Your task to perform on an android device: Add "razer nari" to the cart on ebay.com, then select checkout. Image 0: 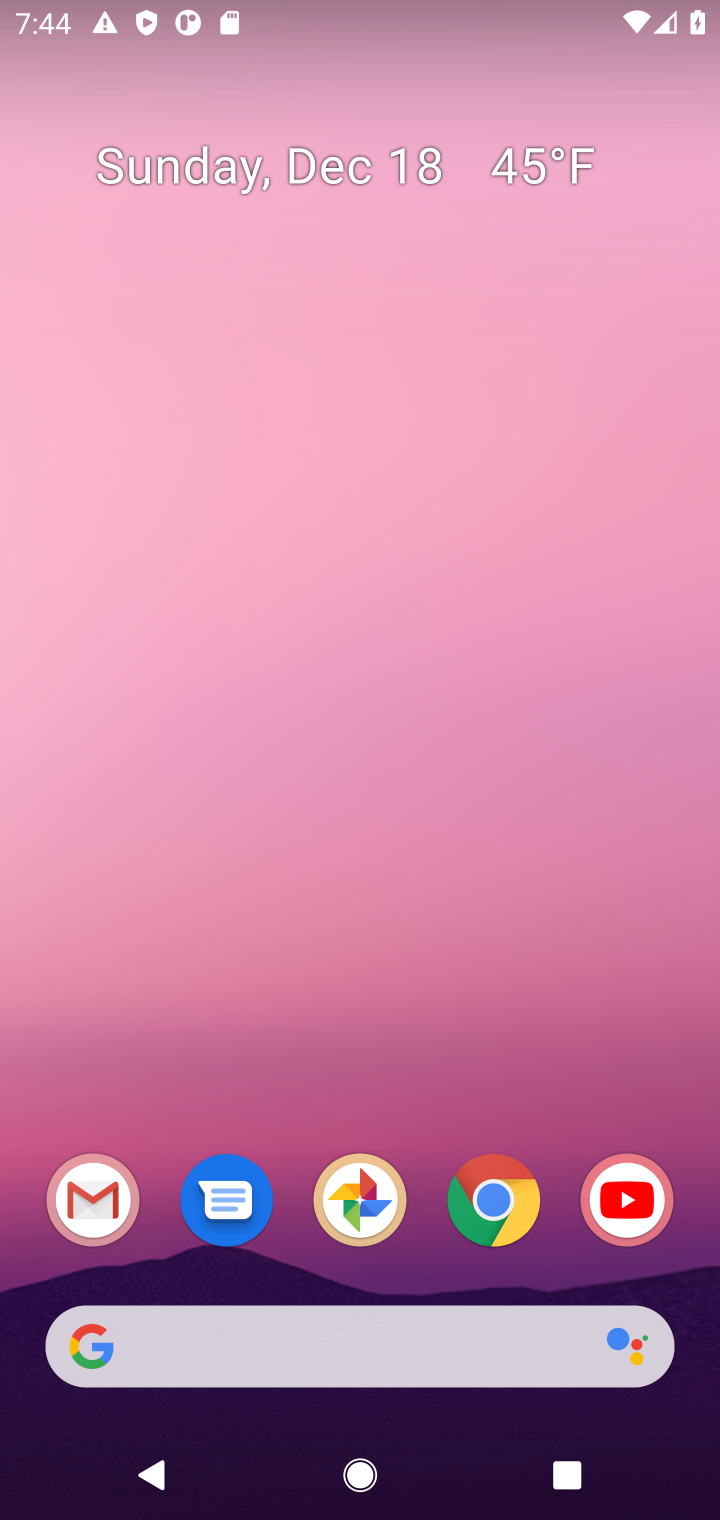
Step 0: click (510, 1209)
Your task to perform on an android device: Add "razer nari" to the cart on ebay.com, then select checkout. Image 1: 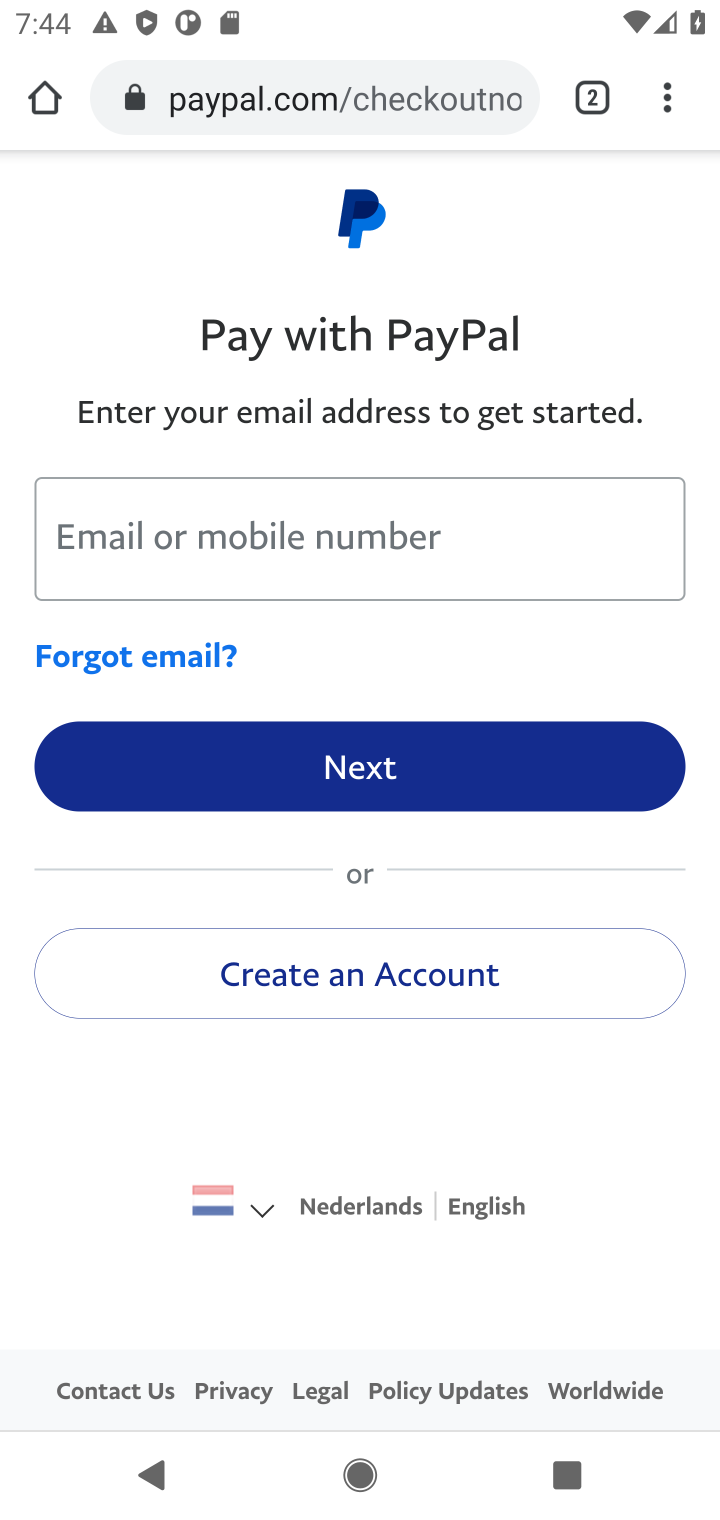
Step 1: click (309, 92)
Your task to perform on an android device: Add "razer nari" to the cart on ebay.com, then select checkout. Image 2: 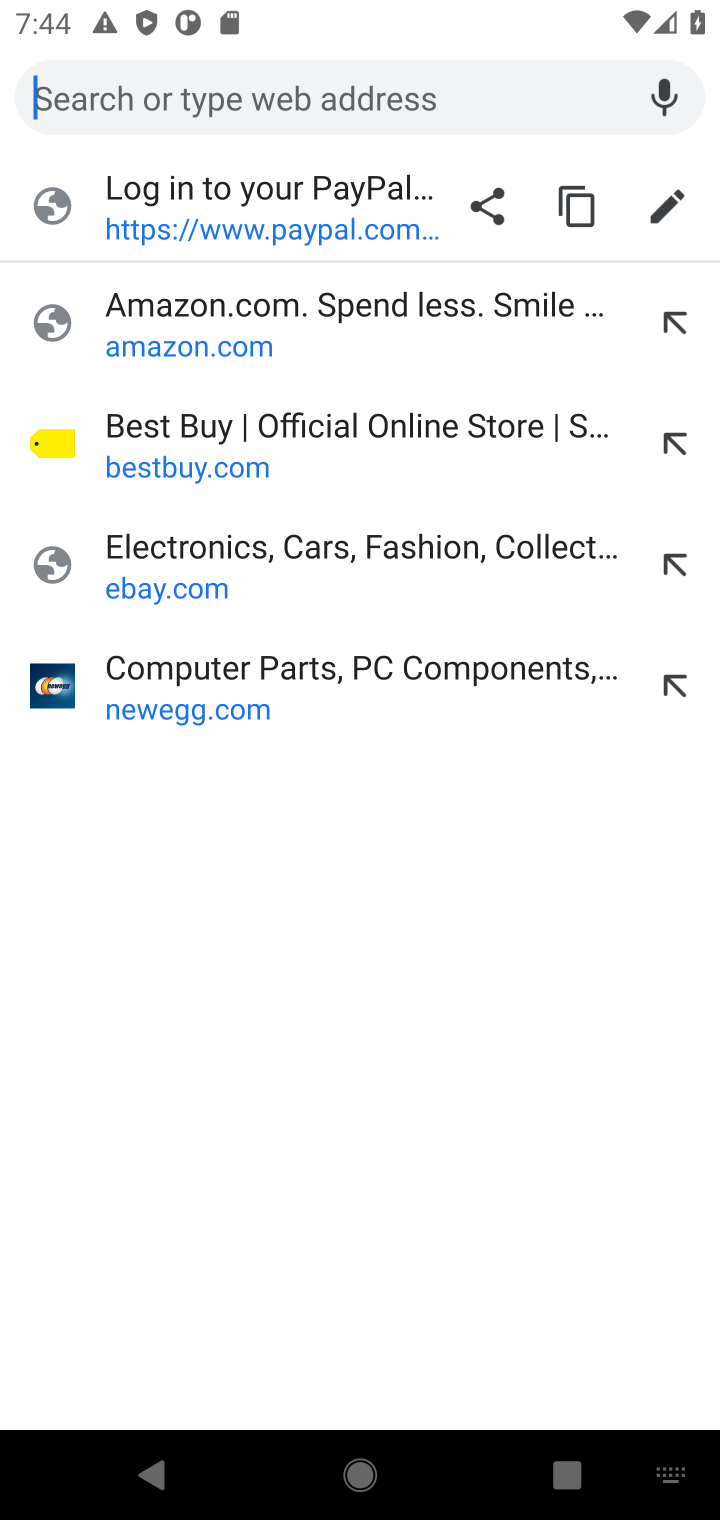
Step 2: click (165, 557)
Your task to perform on an android device: Add "razer nari" to the cart on ebay.com, then select checkout. Image 3: 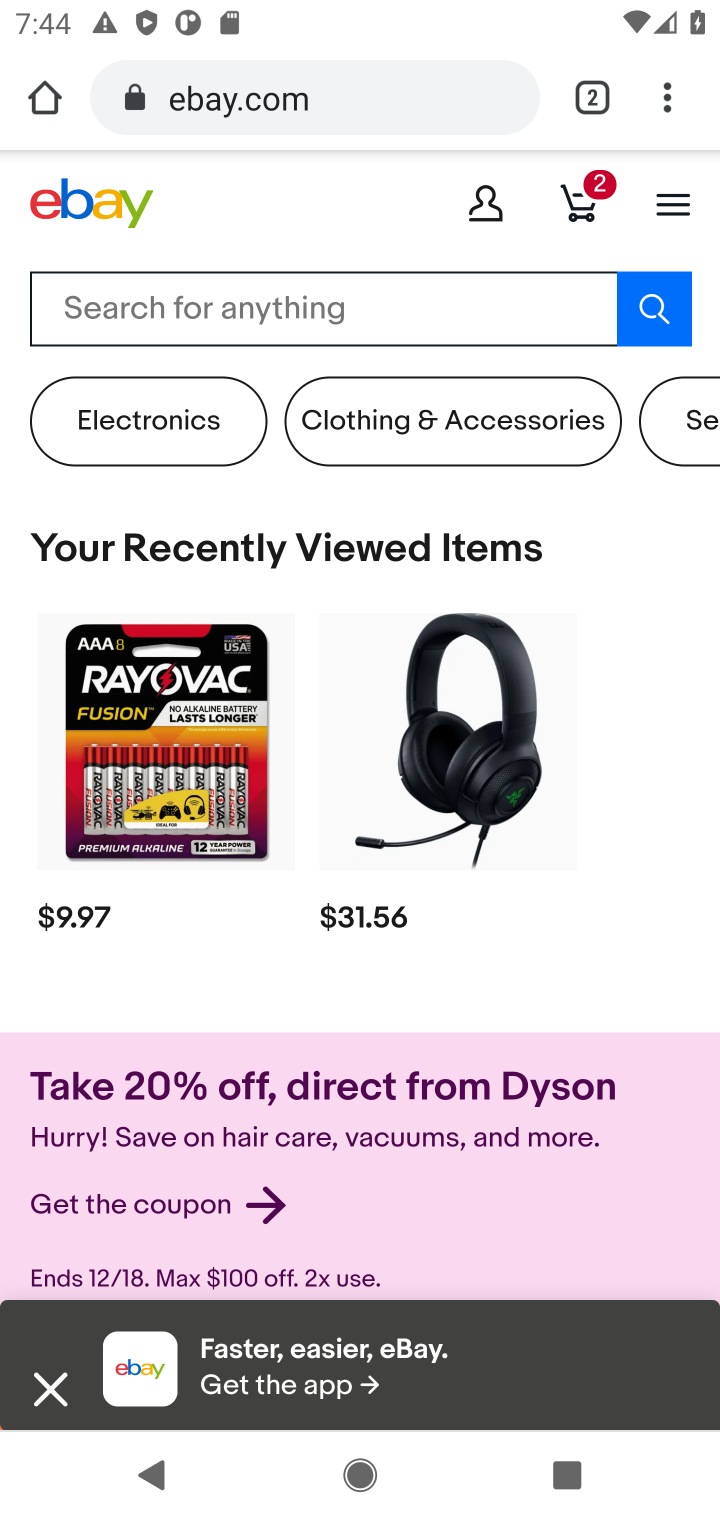
Step 3: click (211, 297)
Your task to perform on an android device: Add "razer nari" to the cart on ebay.com, then select checkout. Image 4: 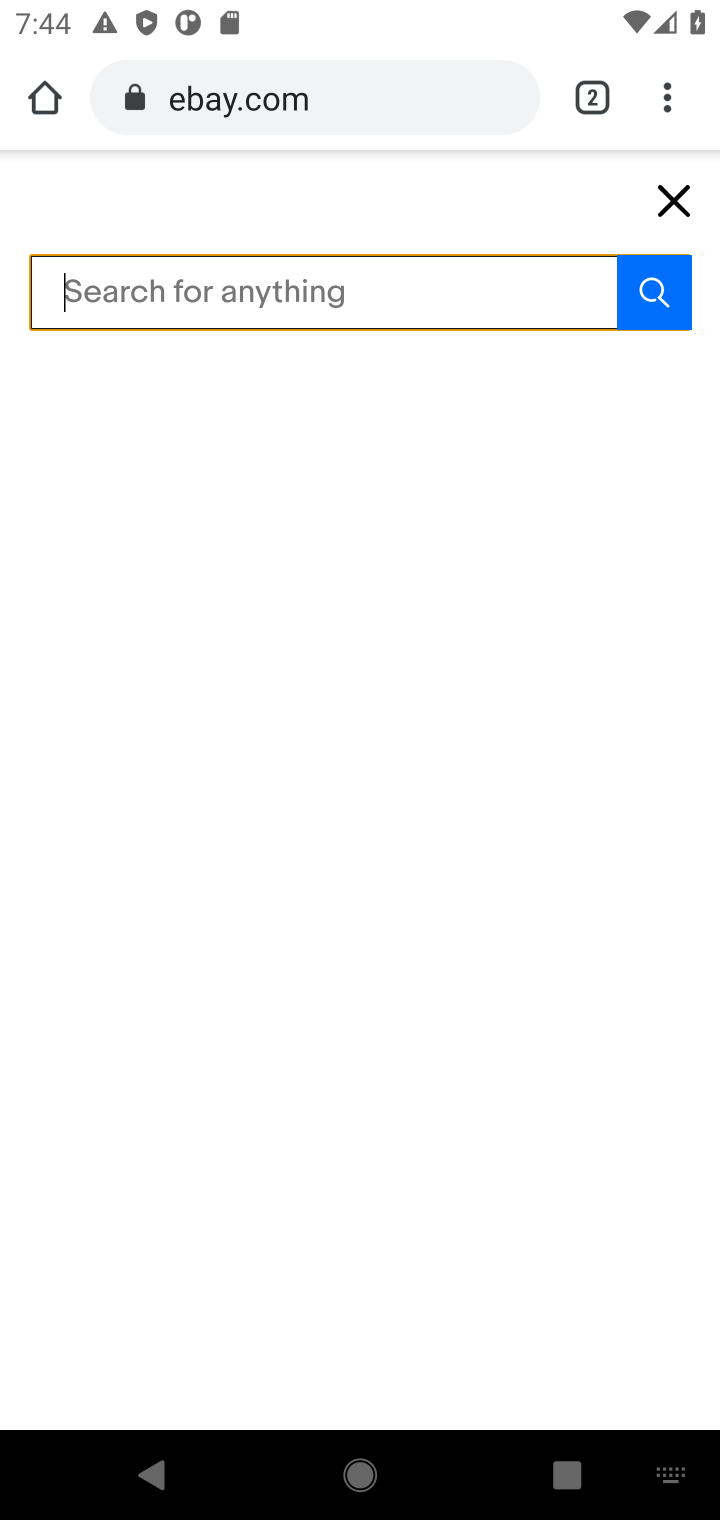
Step 4: type "razer nari"
Your task to perform on an android device: Add "razer nari" to the cart on ebay.com, then select checkout. Image 5: 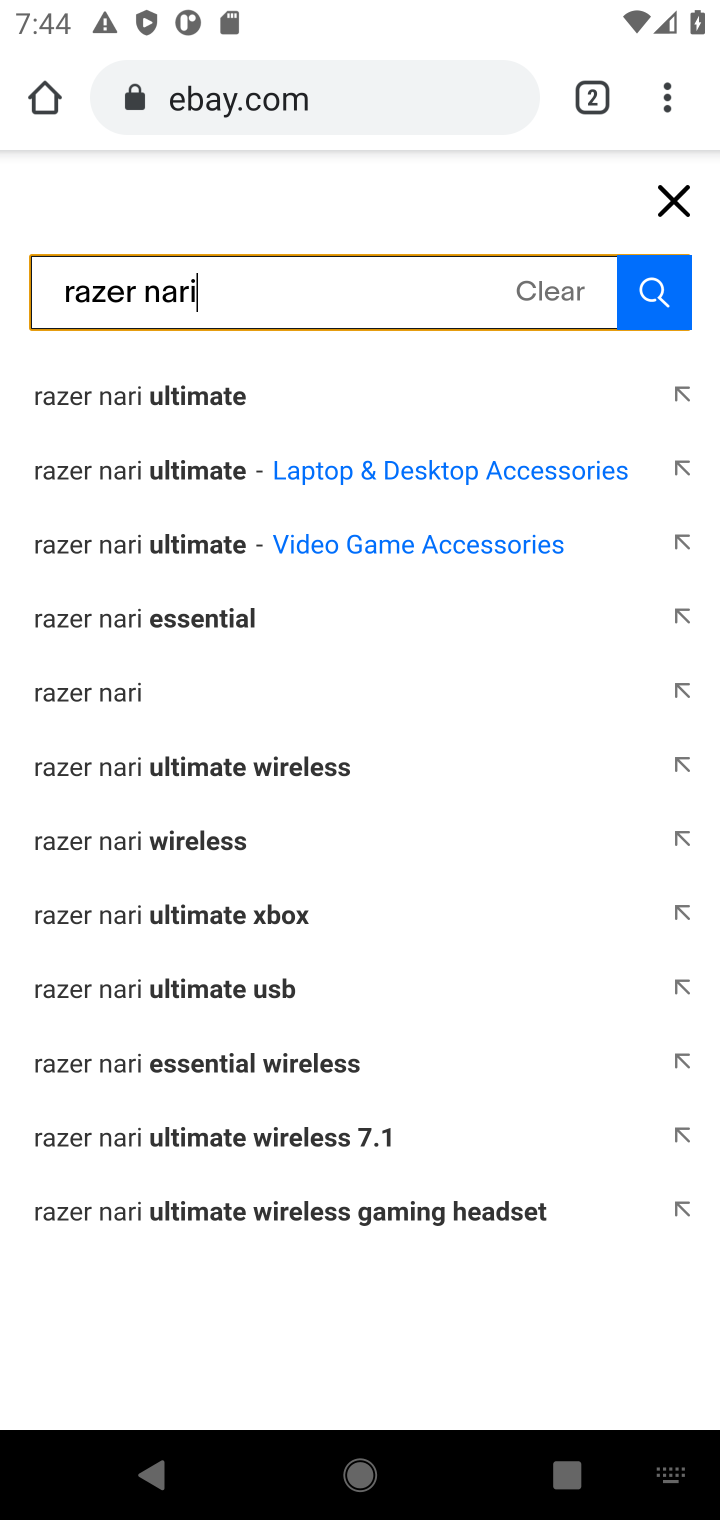
Step 5: click (119, 693)
Your task to perform on an android device: Add "razer nari" to the cart on ebay.com, then select checkout. Image 6: 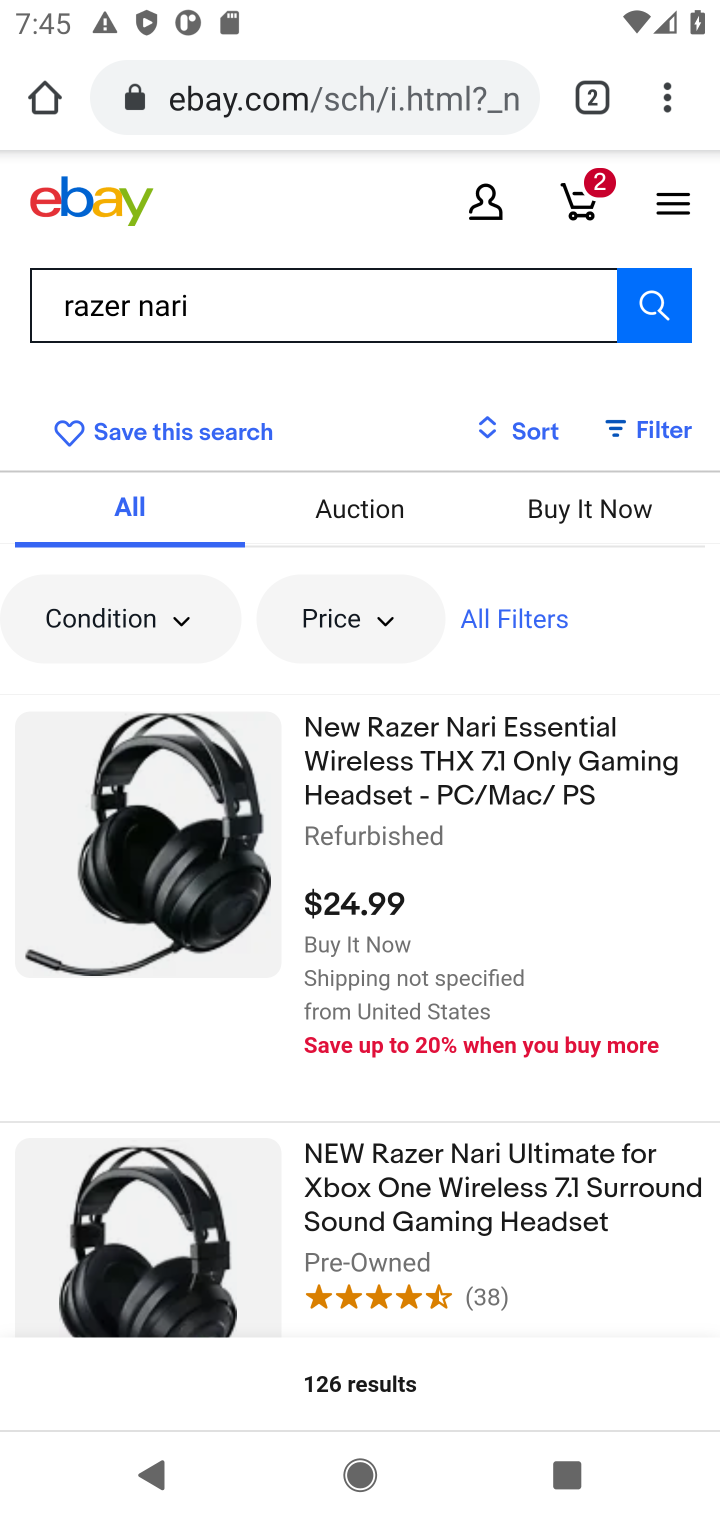
Step 6: click (370, 766)
Your task to perform on an android device: Add "razer nari" to the cart on ebay.com, then select checkout. Image 7: 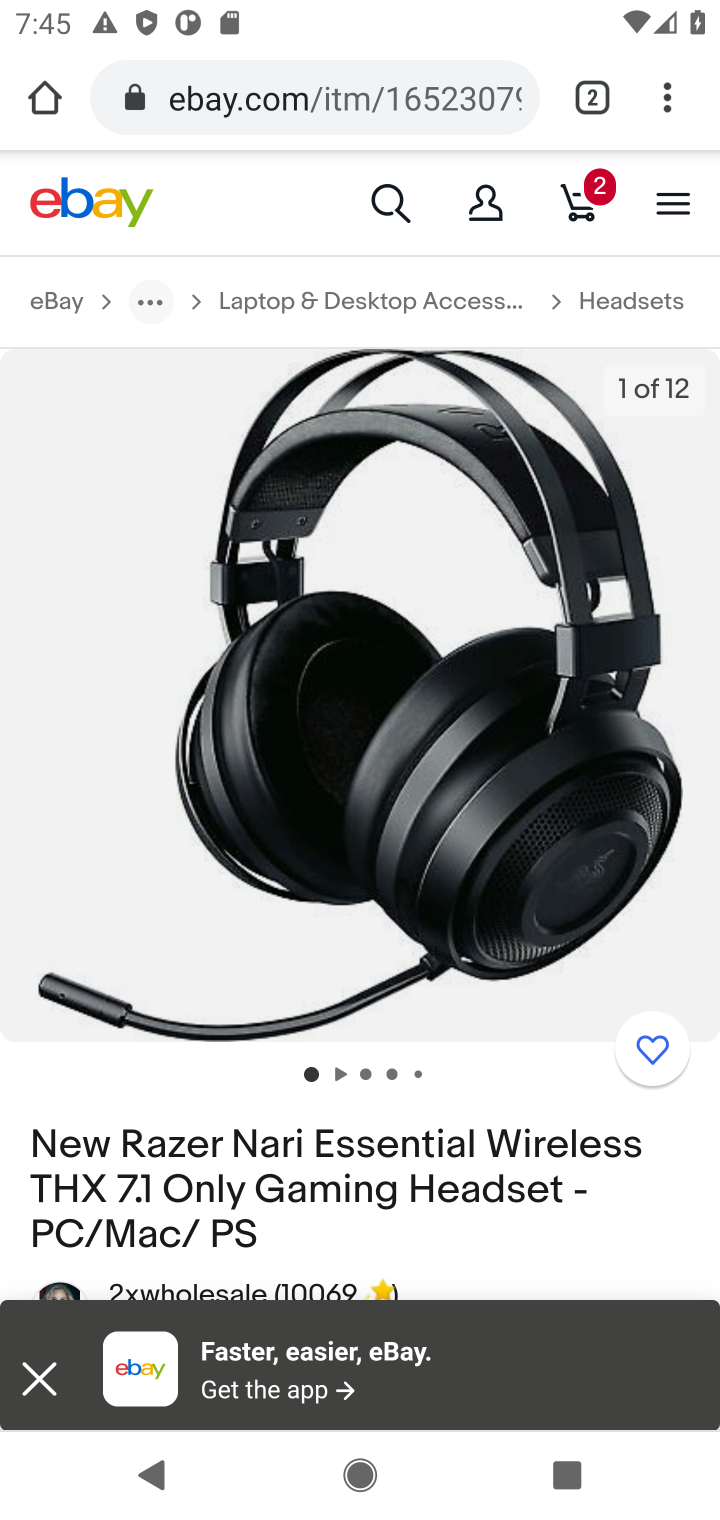
Step 7: drag from (416, 1201) to (332, 449)
Your task to perform on an android device: Add "razer nari" to the cart on ebay.com, then select checkout. Image 8: 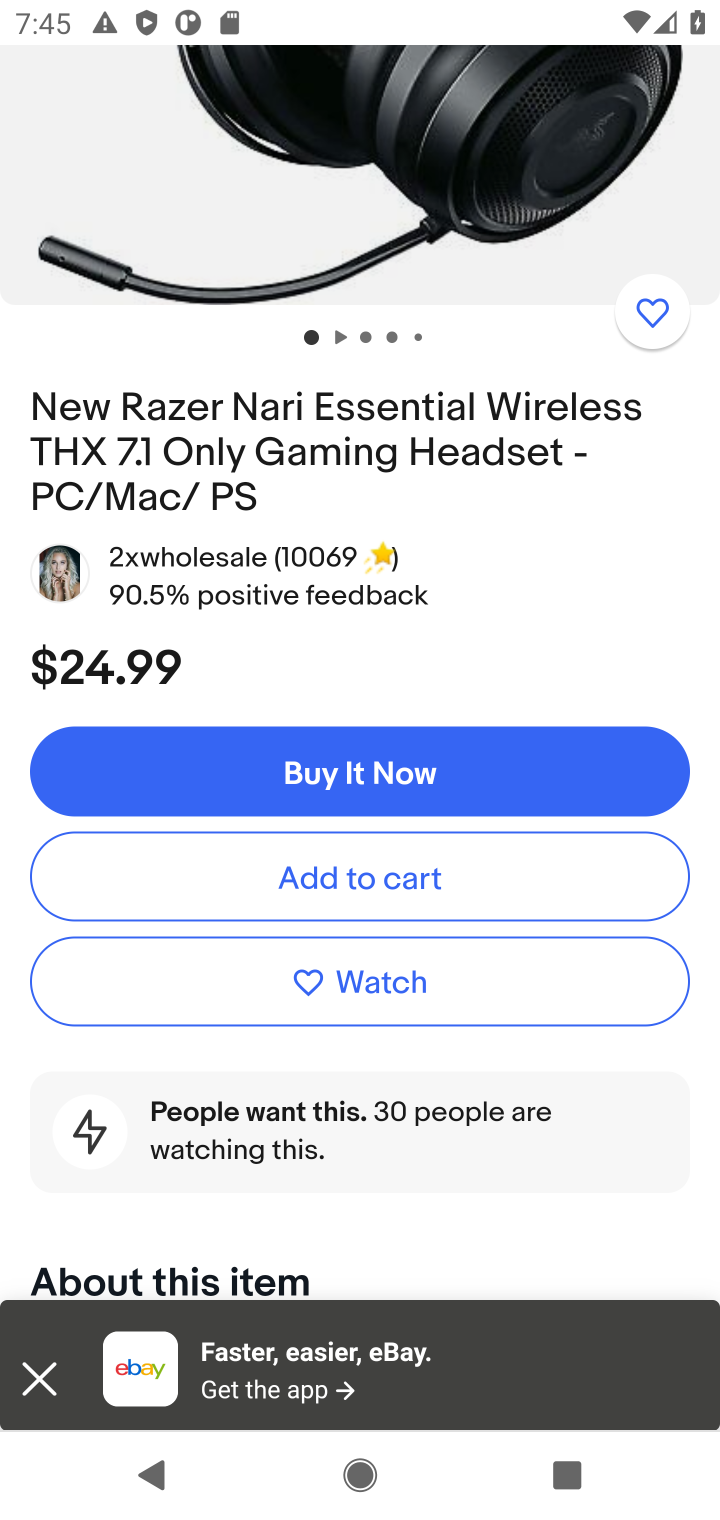
Step 8: click (351, 881)
Your task to perform on an android device: Add "razer nari" to the cart on ebay.com, then select checkout. Image 9: 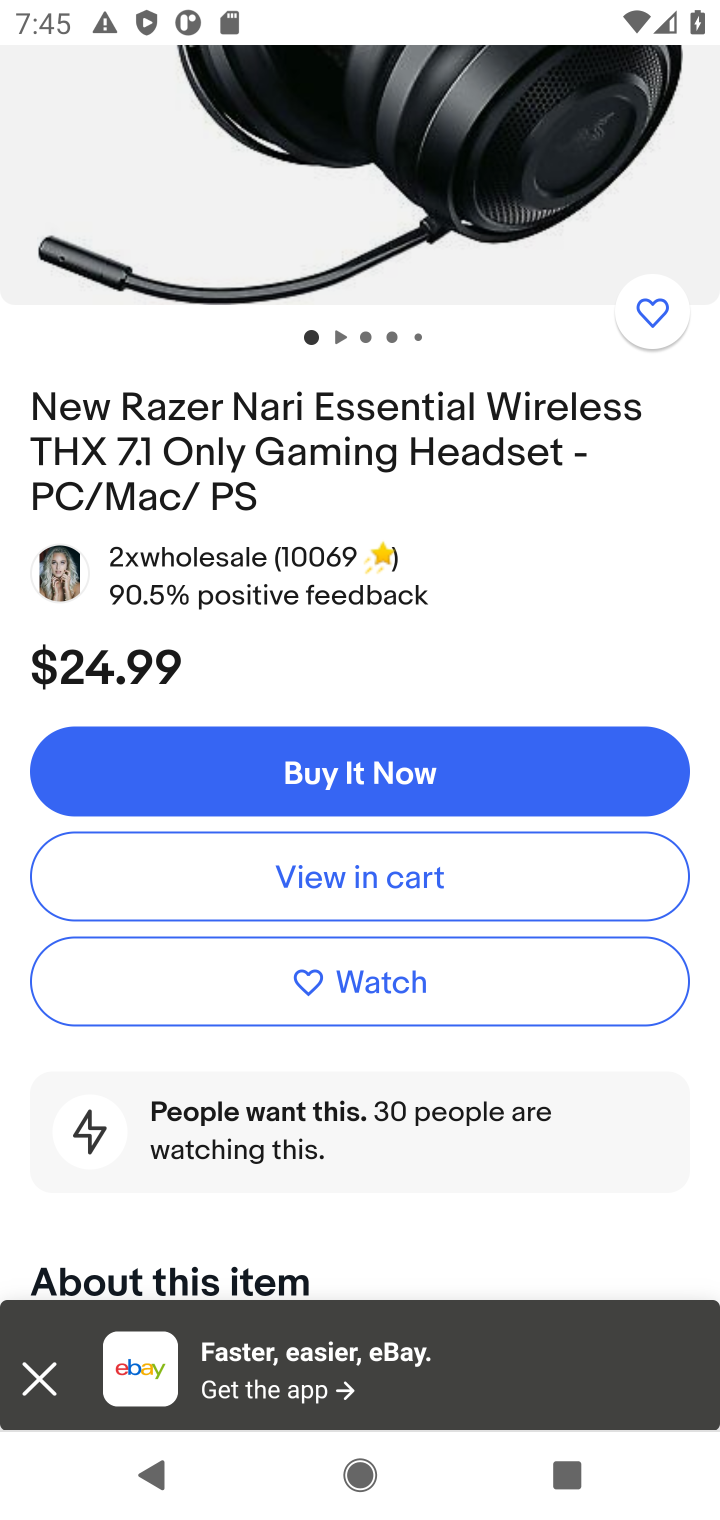
Step 9: click (351, 881)
Your task to perform on an android device: Add "razer nari" to the cart on ebay.com, then select checkout. Image 10: 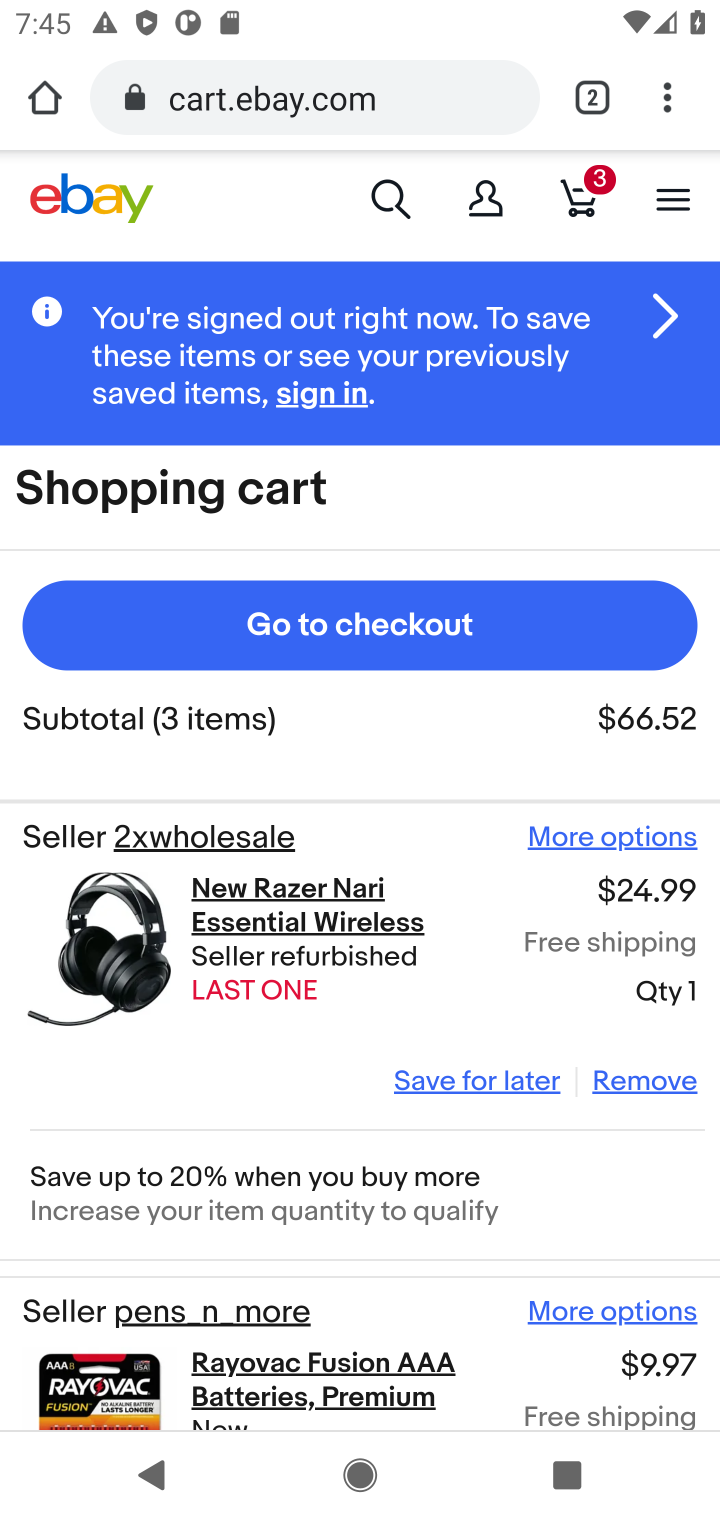
Step 10: click (340, 645)
Your task to perform on an android device: Add "razer nari" to the cart on ebay.com, then select checkout. Image 11: 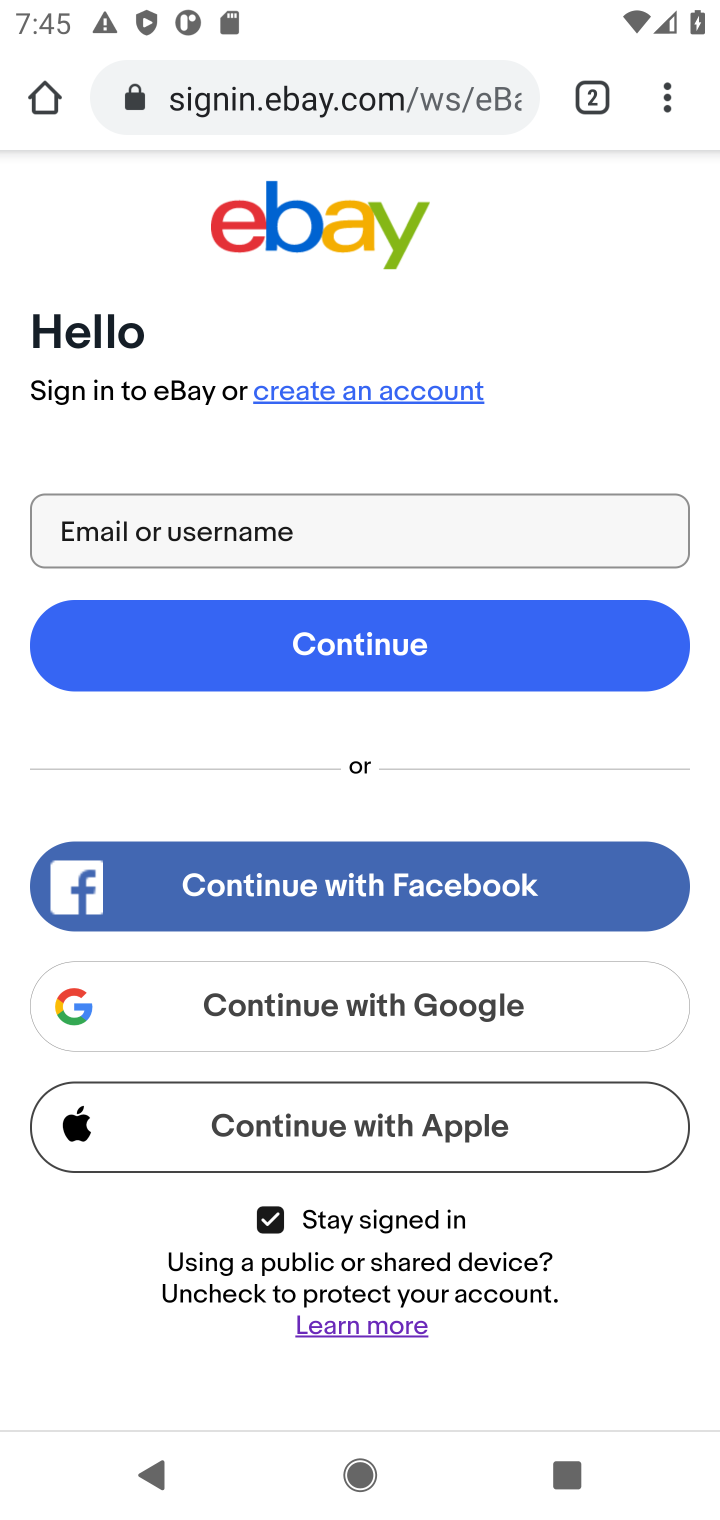
Step 11: task complete